Your task to perform on an android device: open app "Facebook" Image 0: 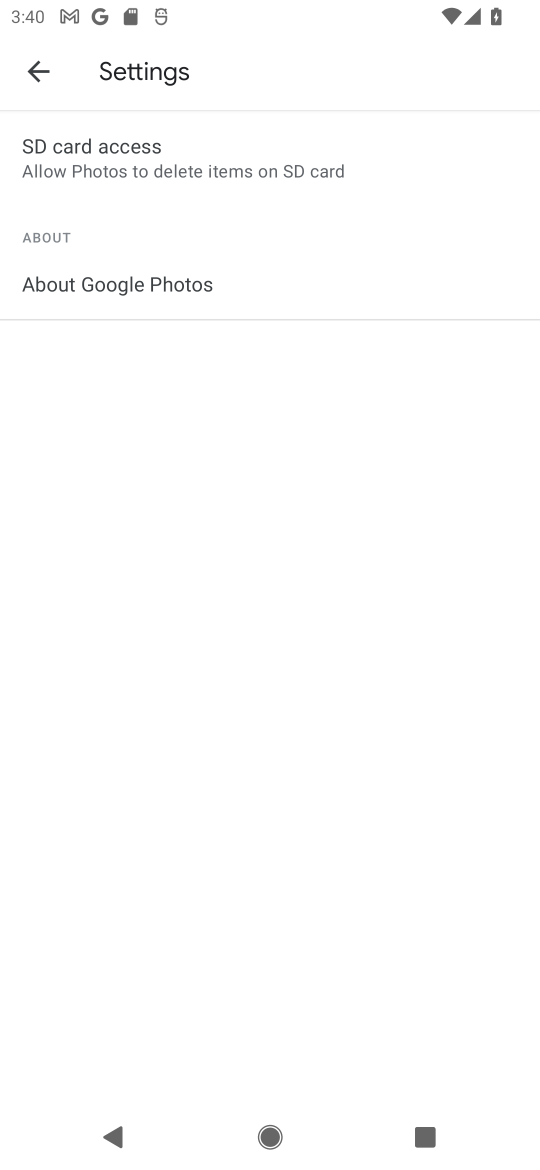
Step 0: drag from (330, 345) to (367, 1131)
Your task to perform on an android device: open app "Facebook" Image 1: 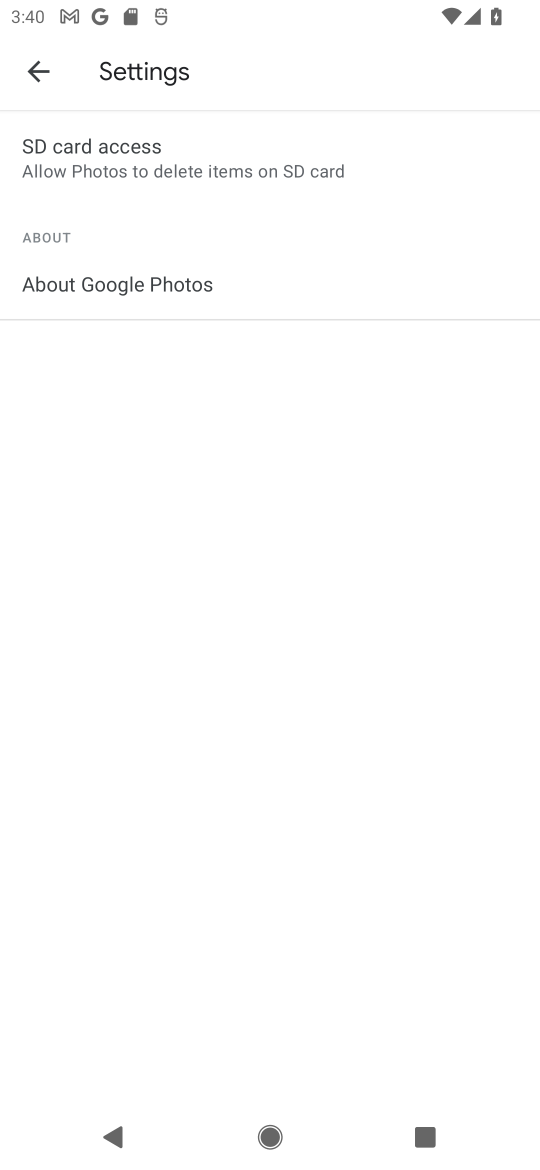
Step 1: press home button
Your task to perform on an android device: open app "Facebook" Image 2: 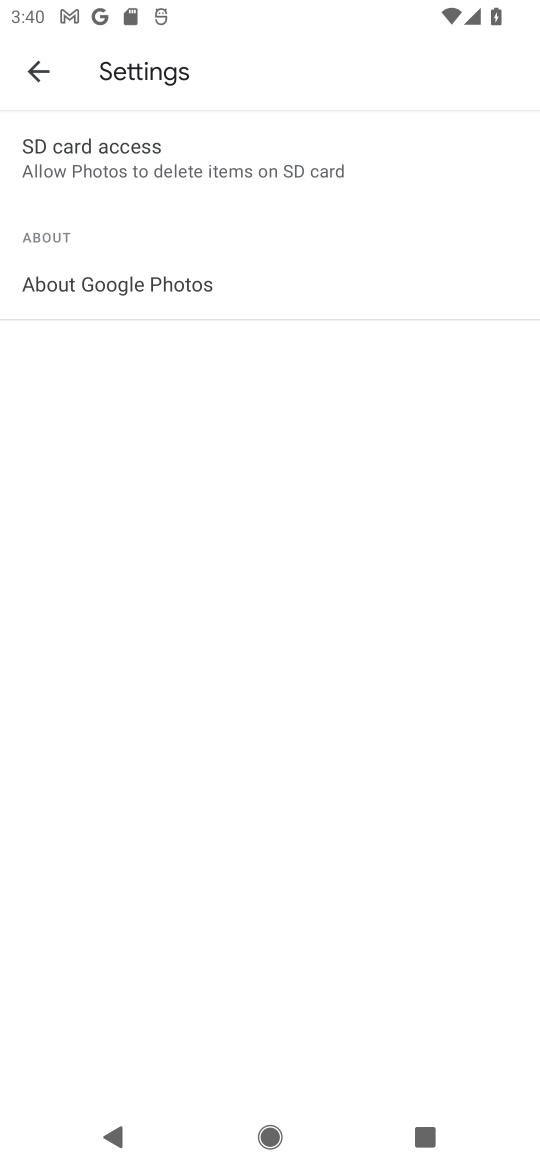
Step 2: press home button
Your task to perform on an android device: open app "Facebook" Image 3: 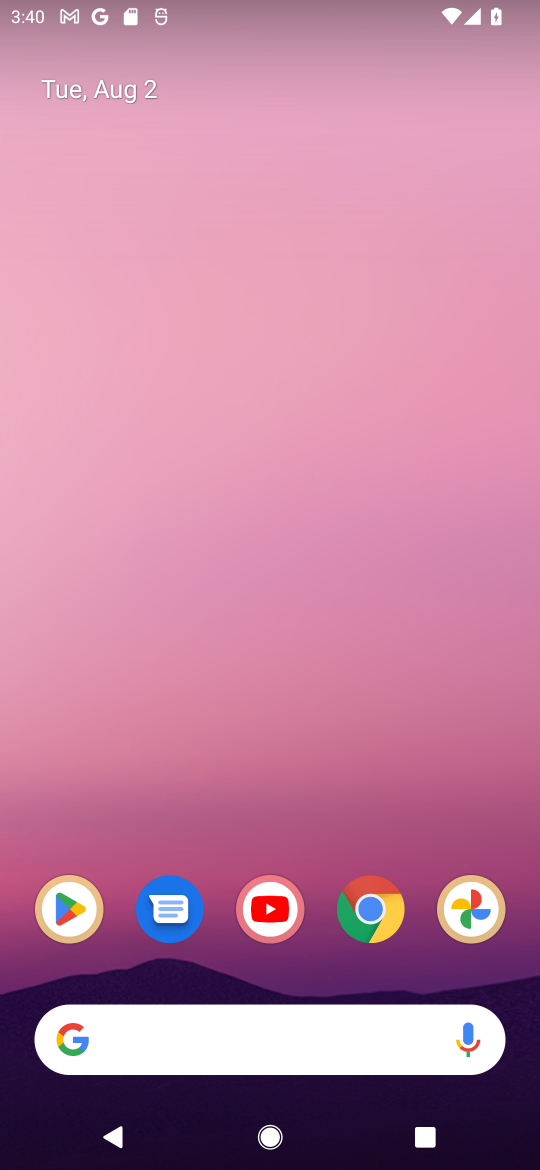
Step 3: drag from (306, 896) to (422, 134)
Your task to perform on an android device: open app "Facebook" Image 4: 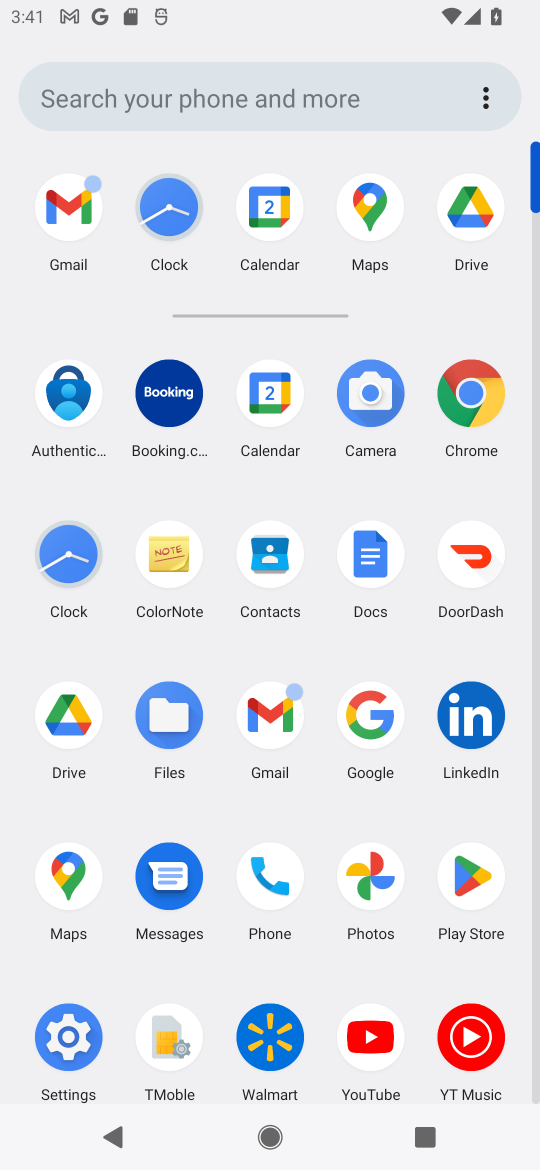
Step 4: click (476, 874)
Your task to perform on an android device: open app "Facebook" Image 5: 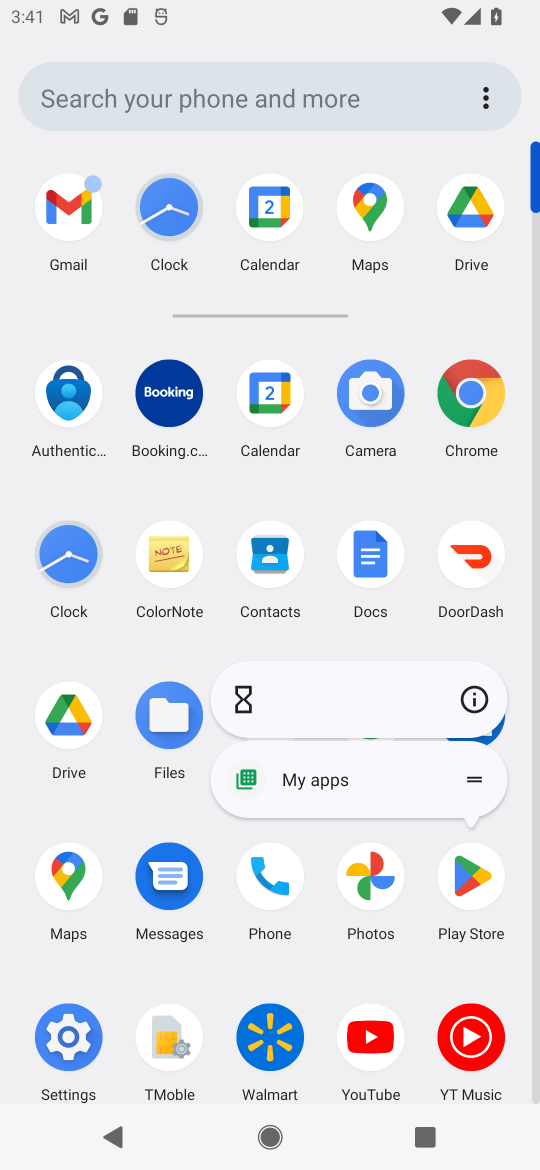
Step 5: click (470, 682)
Your task to perform on an android device: open app "Facebook" Image 6: 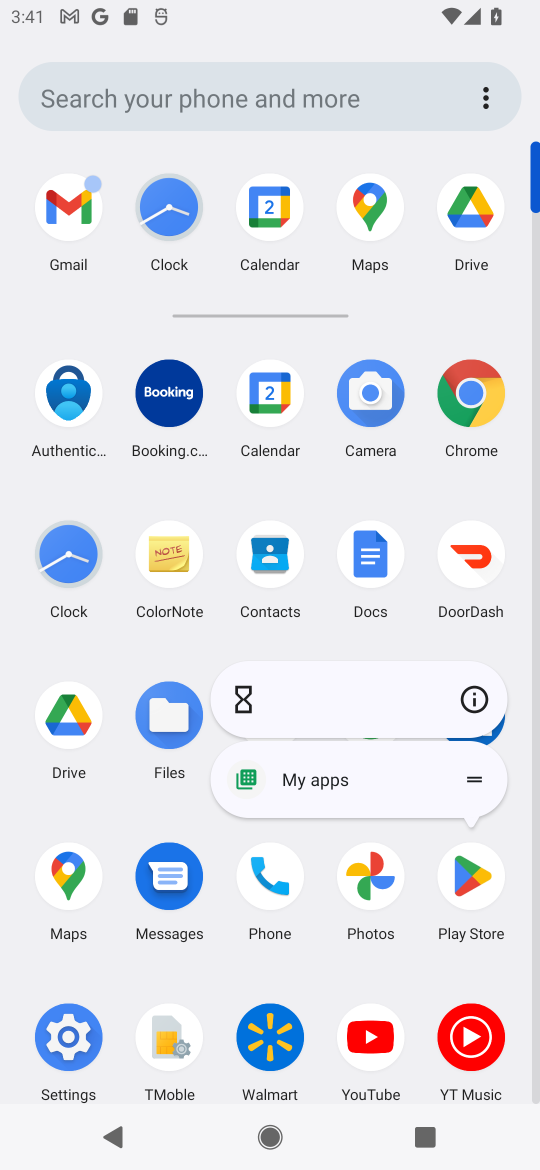
Step 6: click (473, 701)
Your task to perform on an android device: open app "Facebook" Image 7: 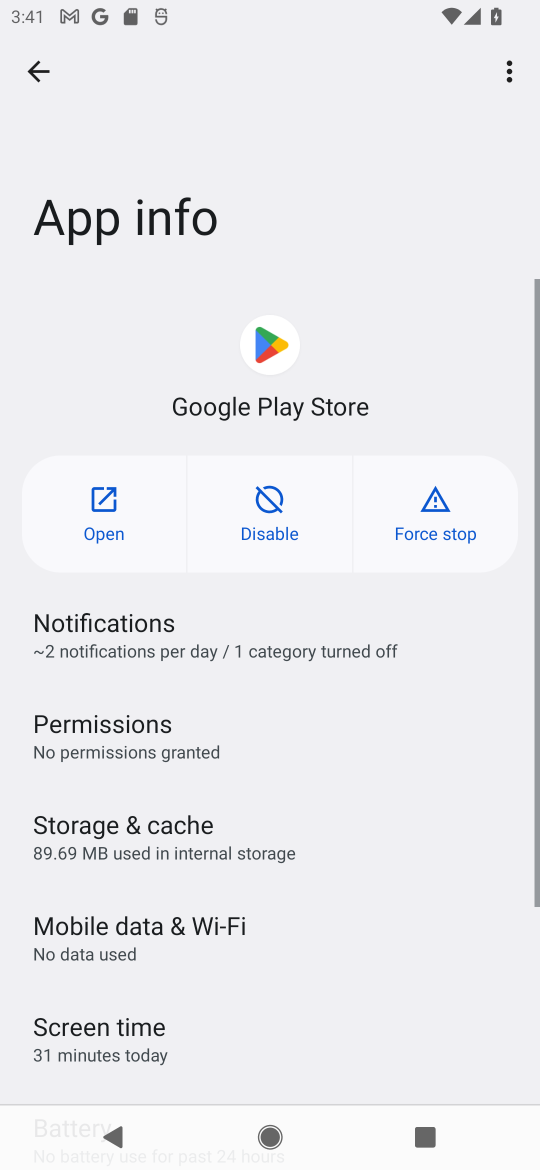
Step 7: click (90, 525)
Your task to perform on an android device: open app "Facebook" Image 8: 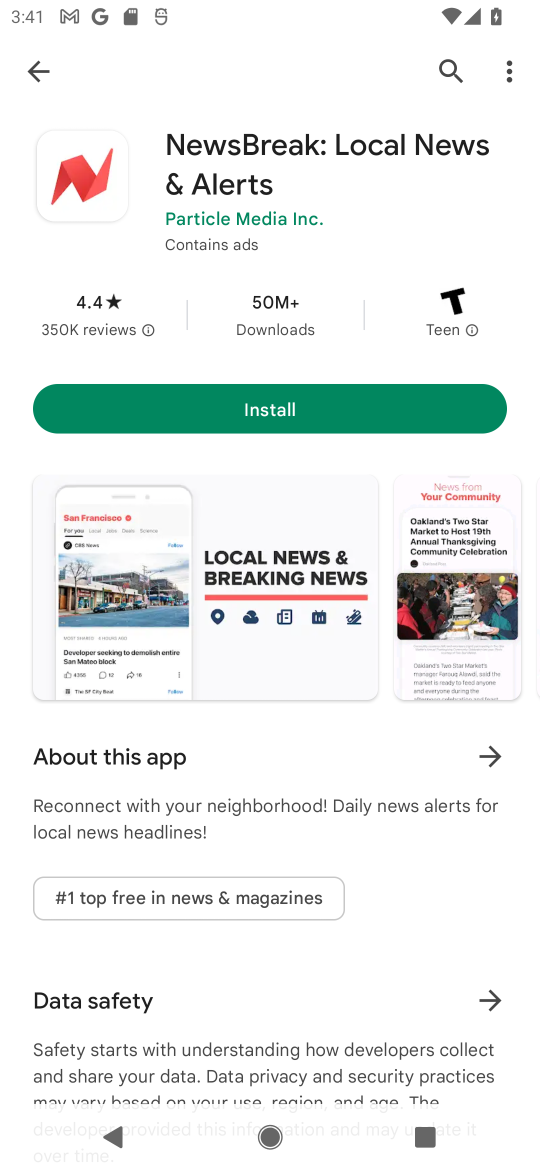
Step 8: click (449, 79)
Your task to perform on an android device: open app "Facebook" Image 9: 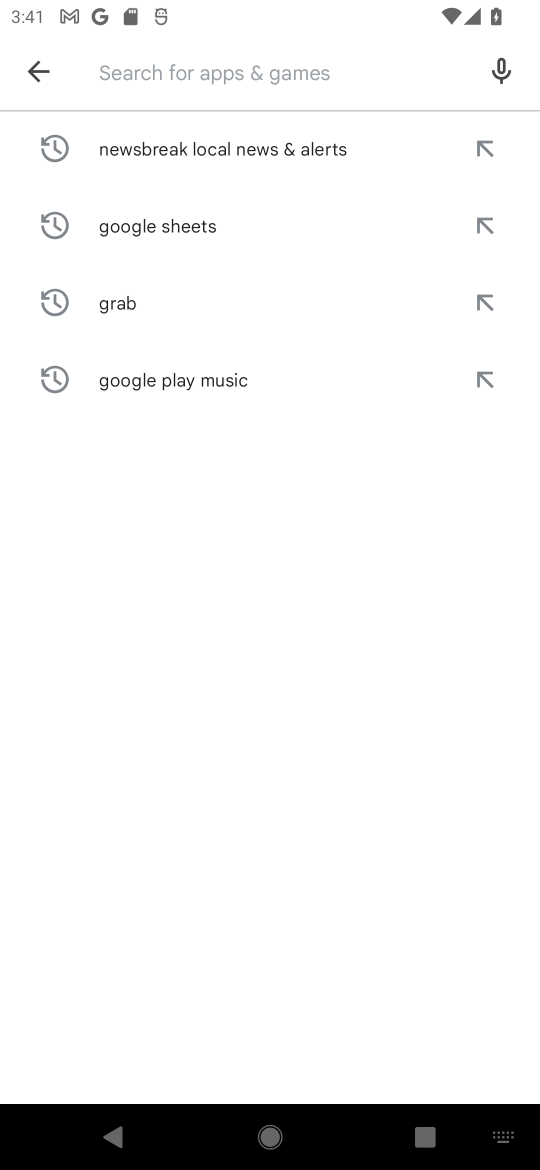
Step 9: click (143, 80)
Your task to perform on an android device: open app "Facebook" Image 10: 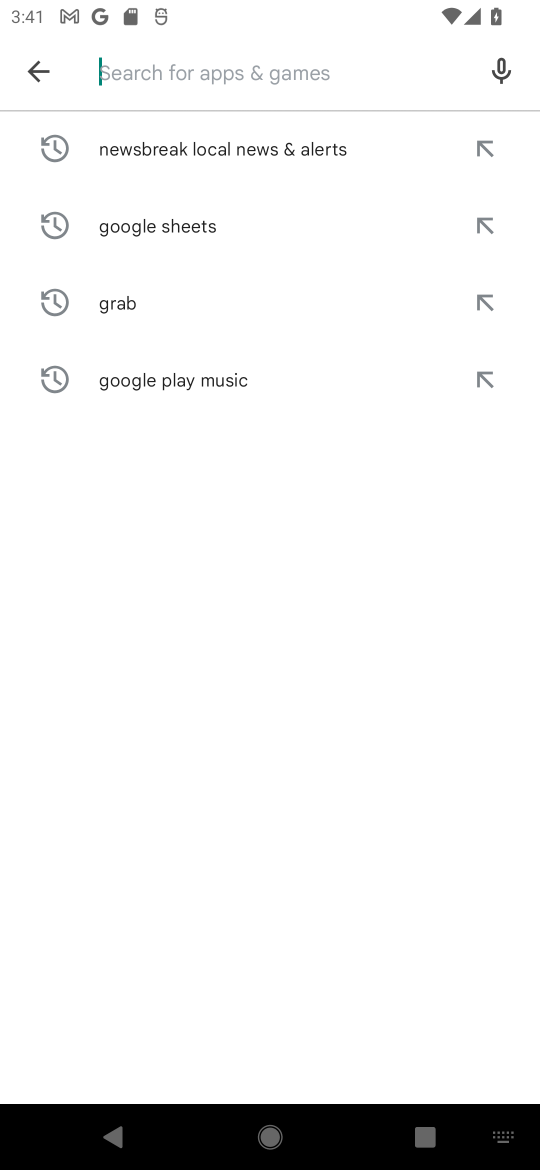
Step 10: type "Facebook"
Your task to perform on an android device: open app "Facebook" Image 11: 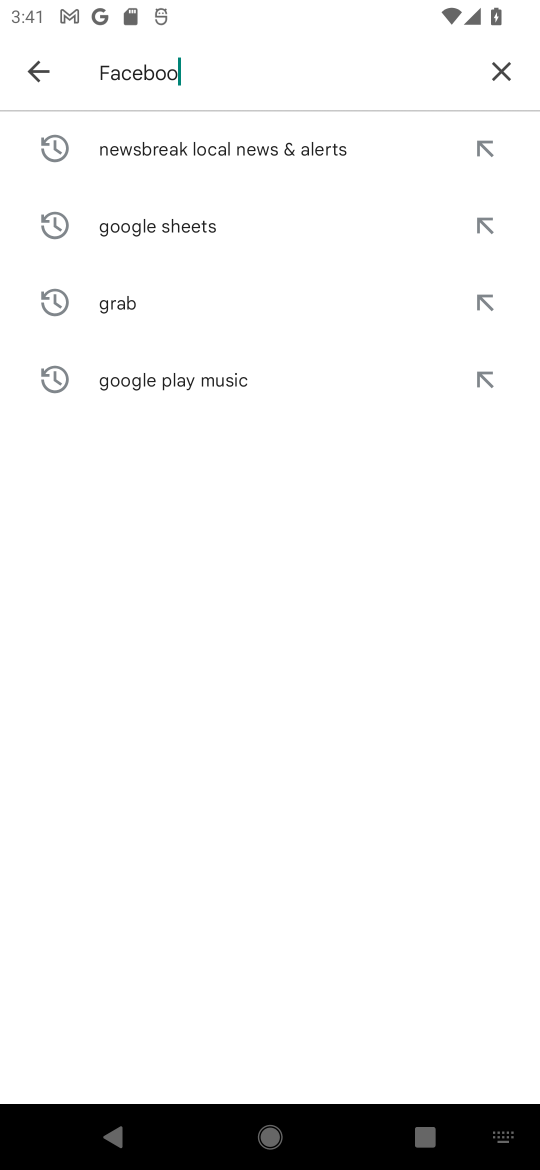
Step 11: type ""
Your task to perform on an android device: open app "Facebook" Image 12: 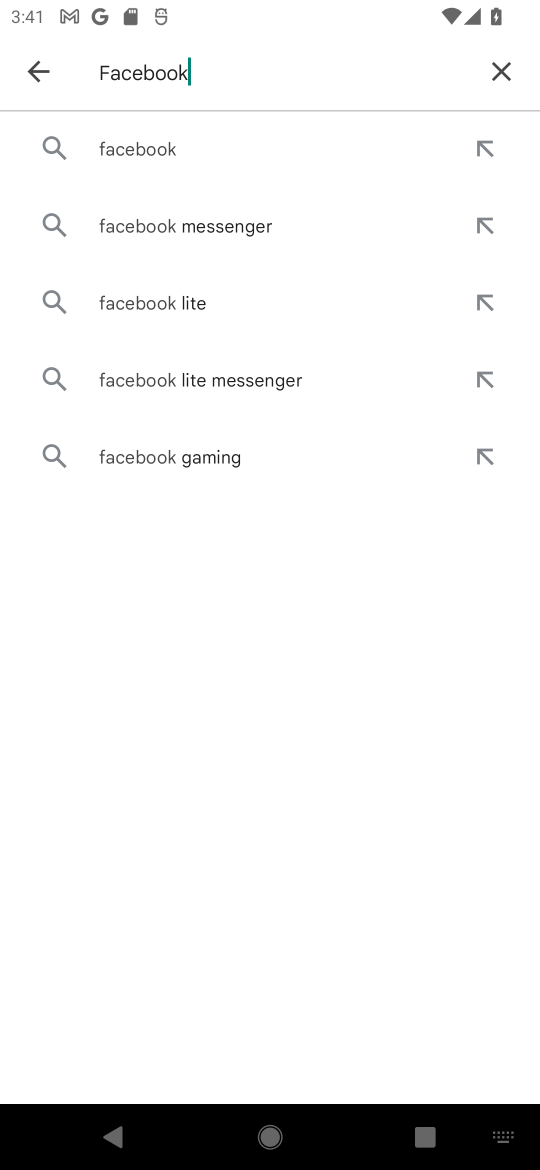
Step 12: click (175, 131)
Your task to perform on an android device: open app "Facebook" Image 13: 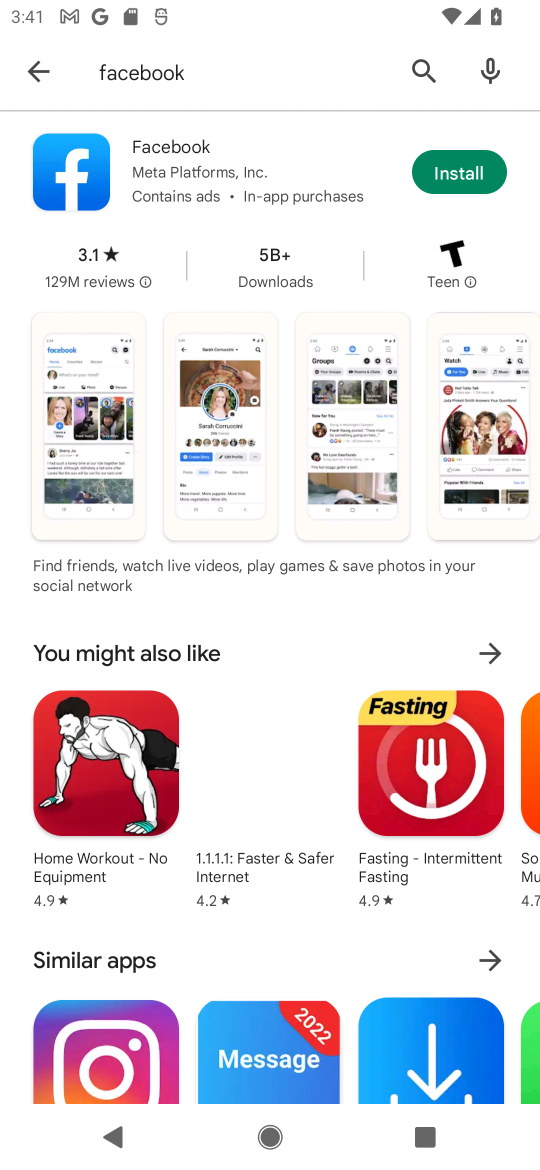
Step 13: click (208, 163)
Your task to perform on an android device: open app "Facebook" Image 14: 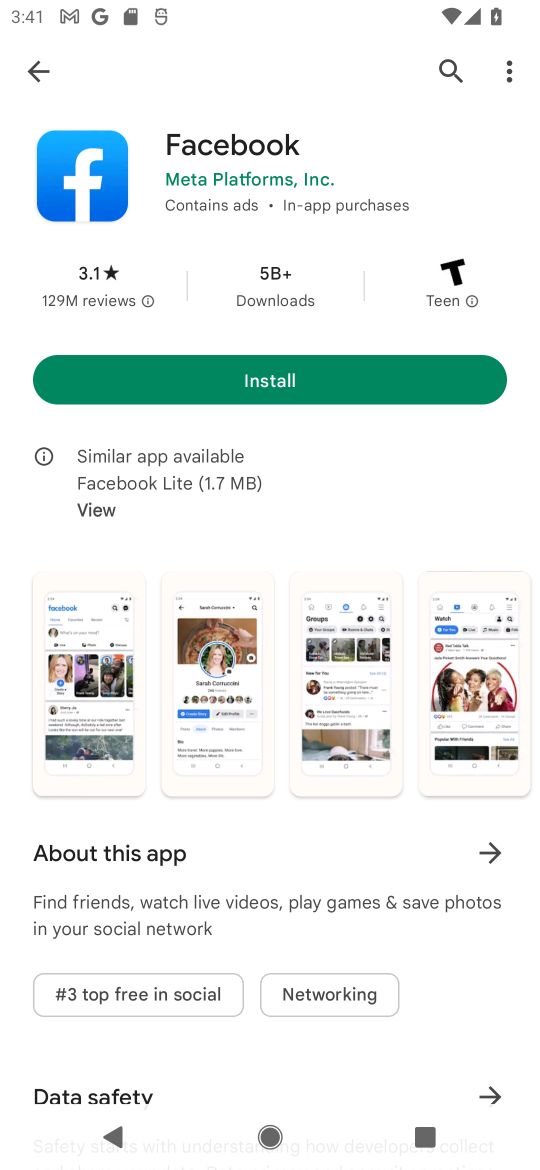
Step 14: task complete